Your task to perform on an android device: toggle location history Image 0: 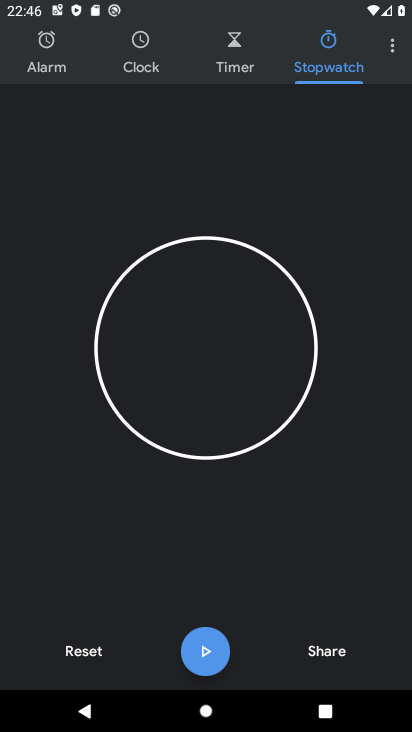
Step 0: press home button
Your task to perform on an android device: toggle location history Image 1: 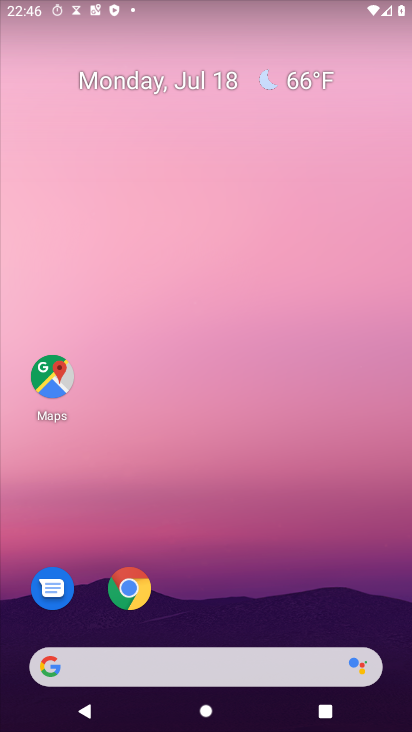
Step 1: click (53, 377)
Your task to perform on an android device: toggle location history Image 2: 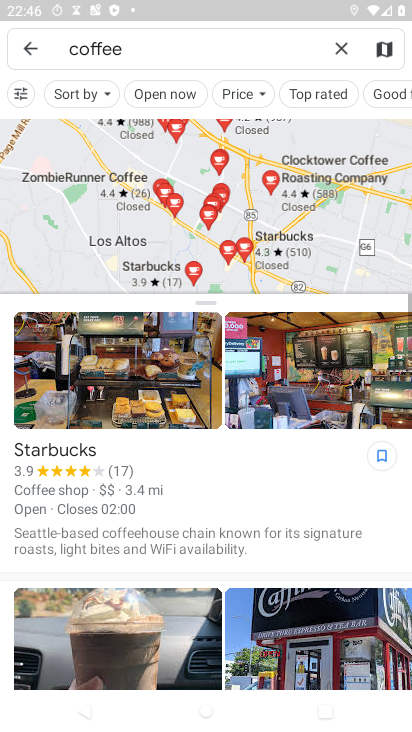
Step 2: click (30, 45)
Your task to perform on an android device: toggle location history Image 3: 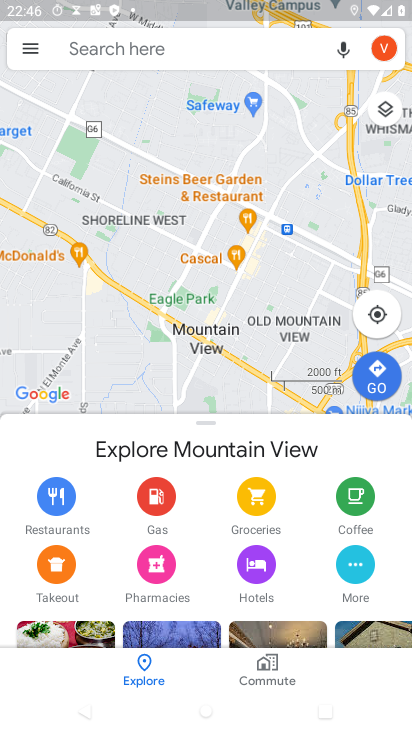
Step 3: click (32, 50)
Your task to perform on an android device: toggle location history Image 4: 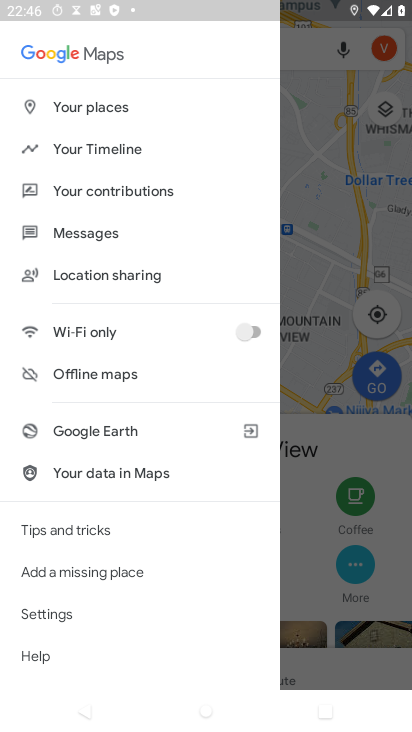
Step 4: click (131, 150)
Your task to perform on an android device: toggle location history Image 5: 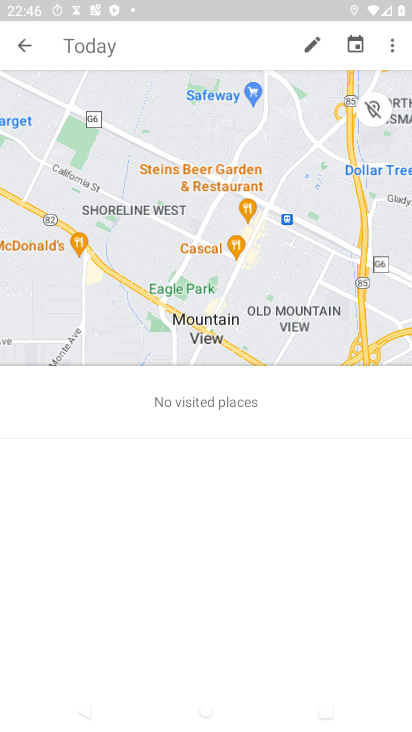
Step 5: click (391, 44)
Your task to perform on an android device: toggle location history Image 6: 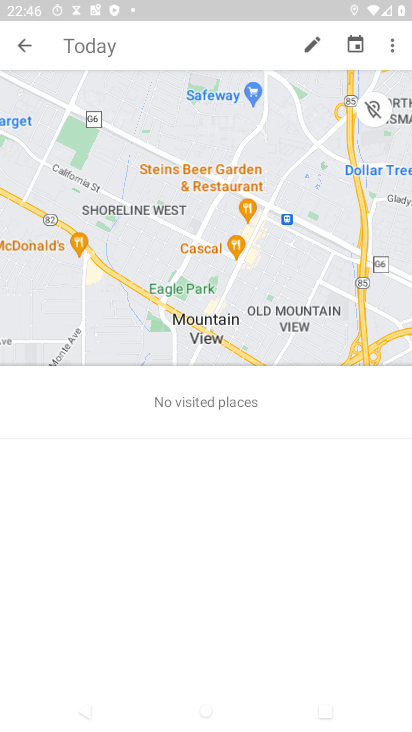
Step 6: click (392, 45)
Your task to perform on an android device: toggle location history Image 7: 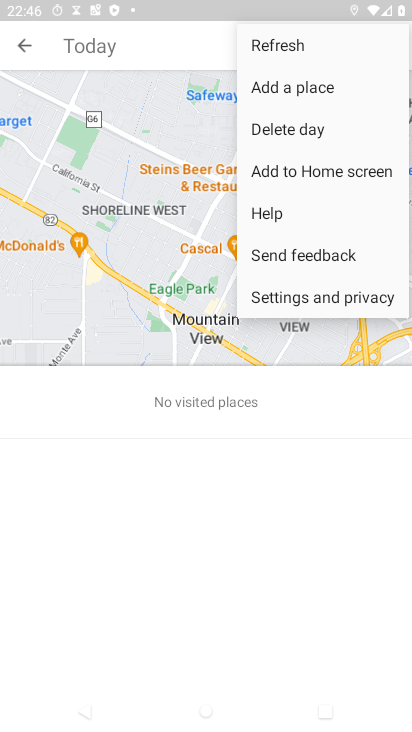
Step 7: click (289, 296)
Your task to perform on an android device: toggle location history Image 8: 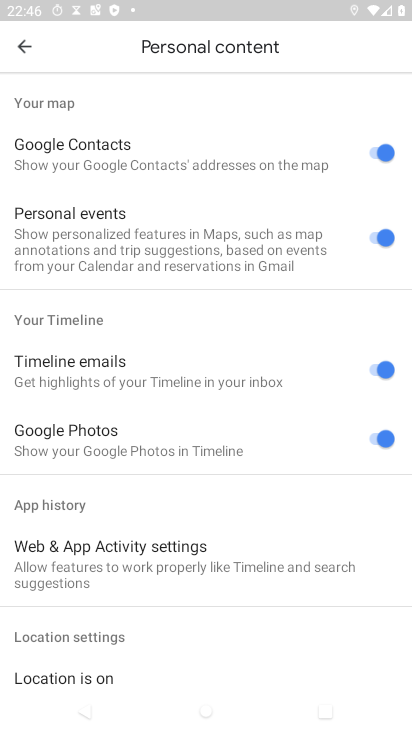
Step 8: drag from (200, 621) to (300, 178)
Your task to perform on an android device: toggle location history Image 9: 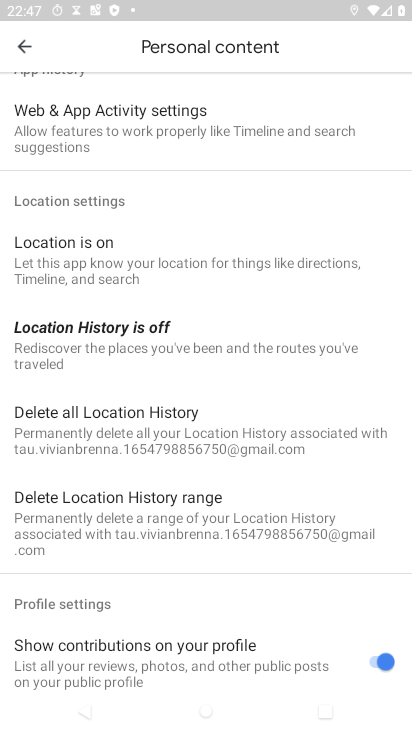
Step 9: click (147, 336)
Your task to perform on an android device: toggle location history Image 10: 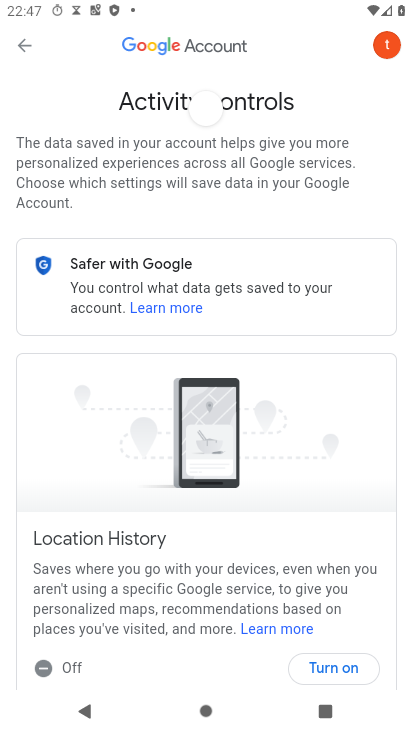
Step 10: drag from (283, 602) to (364, 208)
Your task to perform on an android device: toggle location history Image 11: 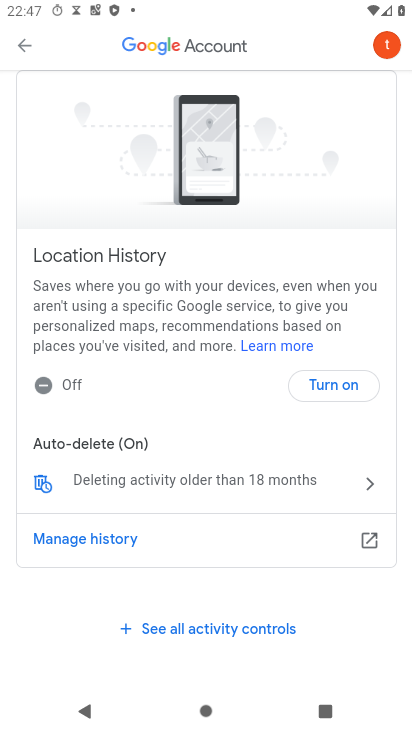
Step 11: click (335, 383)
Your task to perform on an android device: toggle location history Image 12: 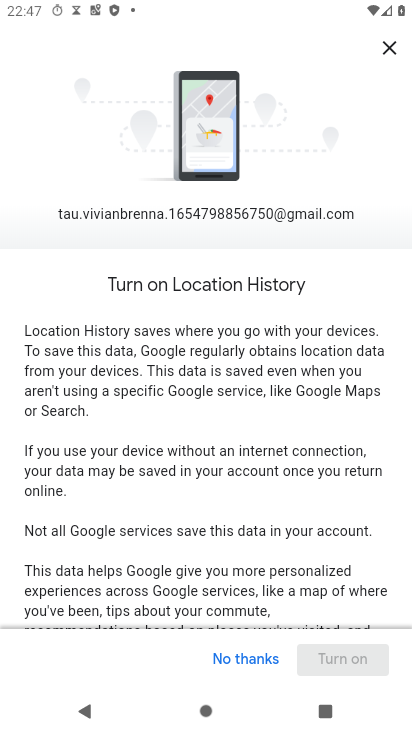
Step 12: drag from (289, 562) to (378, 81)
Your task to perform on an android device: toggle location history Image 13: 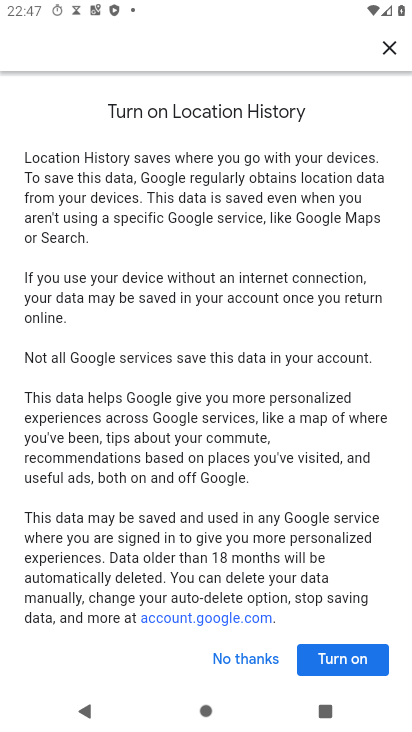
Step 13: click (343, 661)
Your task to perform on an android device: toggle location history Image 14: 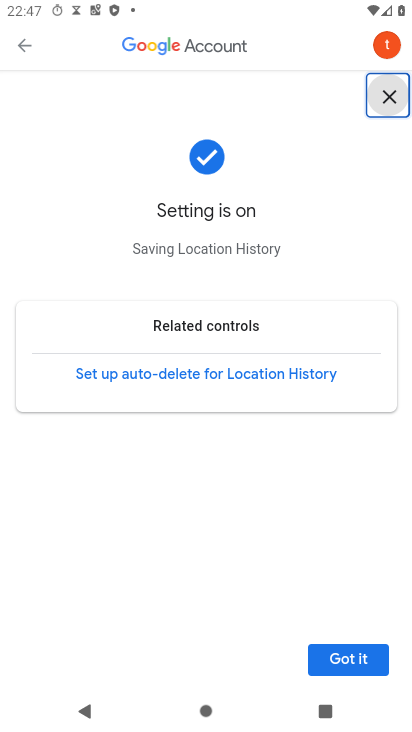
Step 14: click (361, 665)
Your task to perform on an android device: toggle location history Image 15: 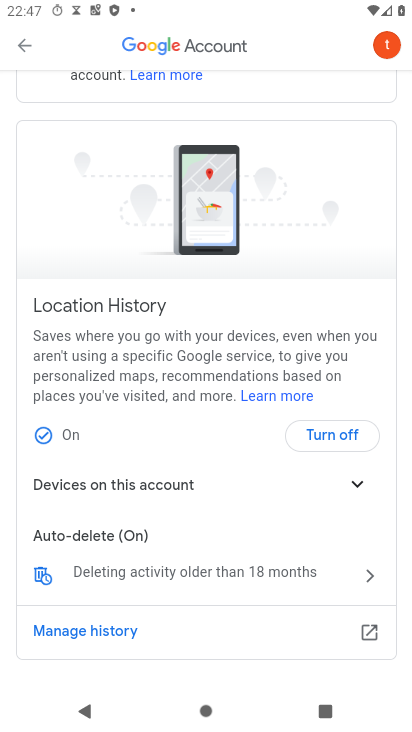
Step 15: task complete